Your task to perform on an android device: turn notification dots on Image 0: 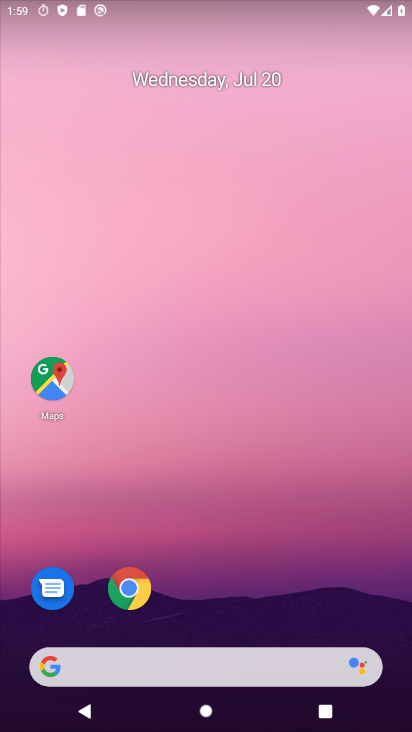
Step 0: drag from (336, 534) to (349, 187)
Your task to perform on an android device: turn notification dots on Image 1: 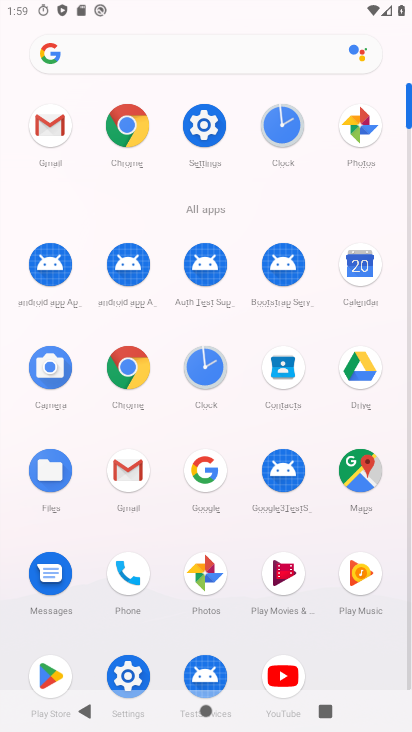
Step 1: click (195, 124)
Your task to perform on an android device: turn notification dots on Image 2: 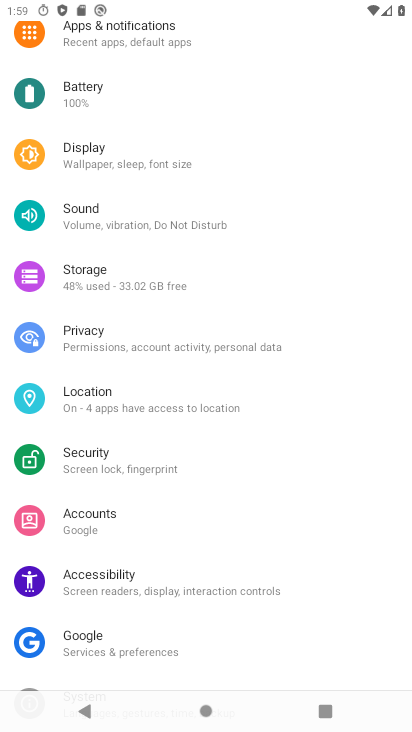
Step 2: click (165, 35)
Your task to perform on an android device: turn notification dots on Image 3: 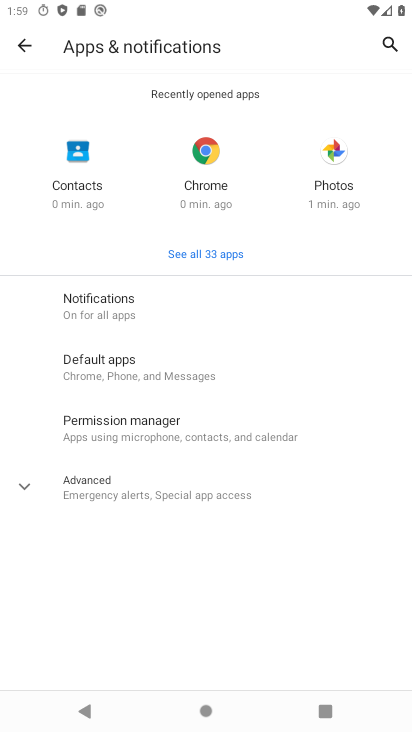
Step 3: click (131, 311)
Your task to perform on an android device: turn notification dots on Image 4: 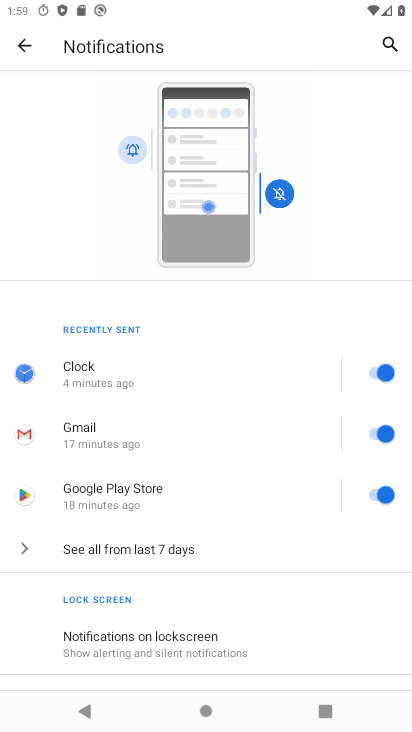
Step 4: drag from (201, 538) to (244, 310)
Your task to perform on an android device: turn notification dots on Image 5: 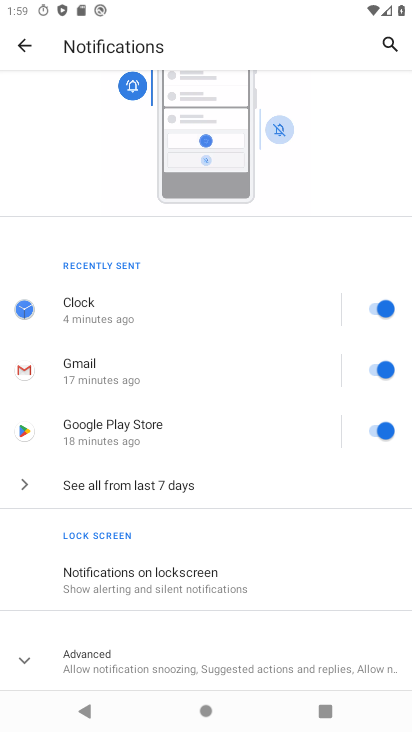
Step 5: click (164, 660)
Your task to perform on an android device: turn notification dots on Image 6: 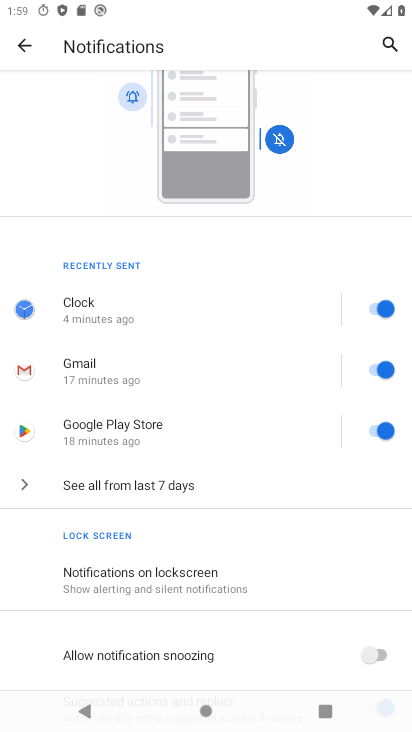
Step 6: drag from (134, 662) to (231, 333)
Your task to perform on an android device: turn notification dots on Image 7: 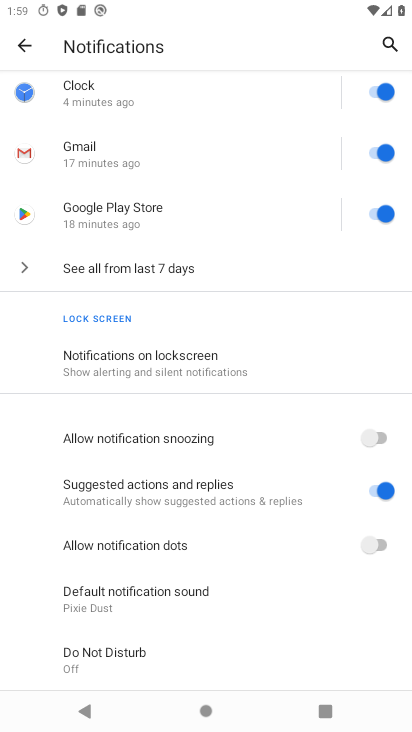
Step 7: click (378, 543)
Your task to perform on an android device: turn notification dots on Image 8: 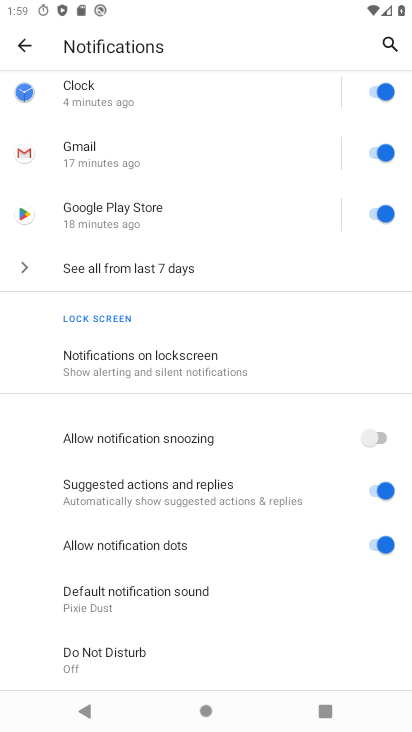
Step 8: task complete